Your task to perform on an android device: What's the weather going to be tomorrow? Image 0: 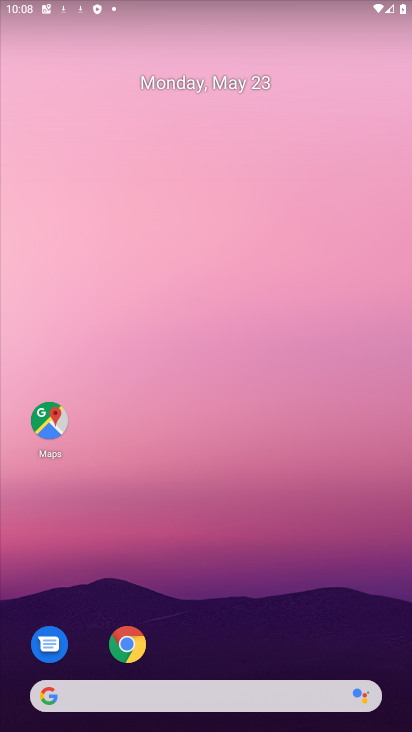
Step 0: drag from (275, 713) to (205, 204)
Your task to perform on an android device: What's the weather going to be tomorrow? Image 1: 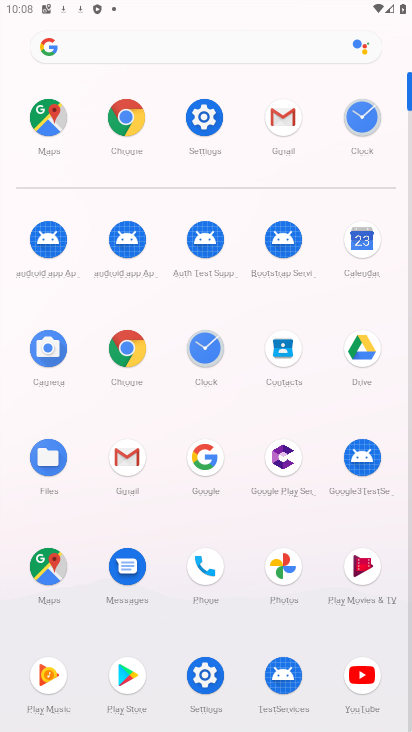
Step 1: click (101, 48)
Your task to perform on an android device: What's the weather going to be tomorrow? Image 2: 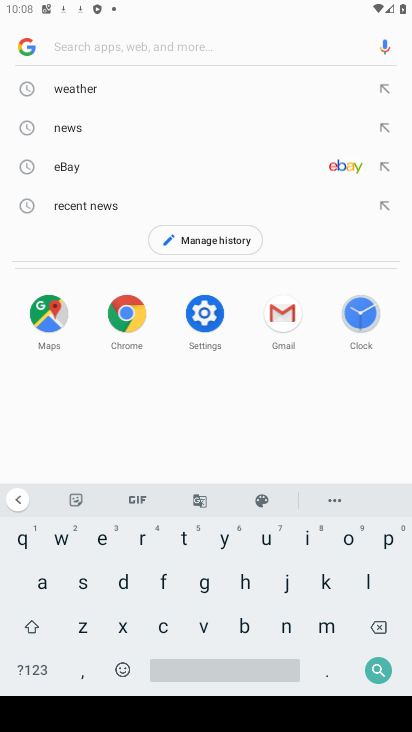
Step 2: click (100, 94)
Your task to perform on an android device: What's the weather going to be tomorrow? Image 3: 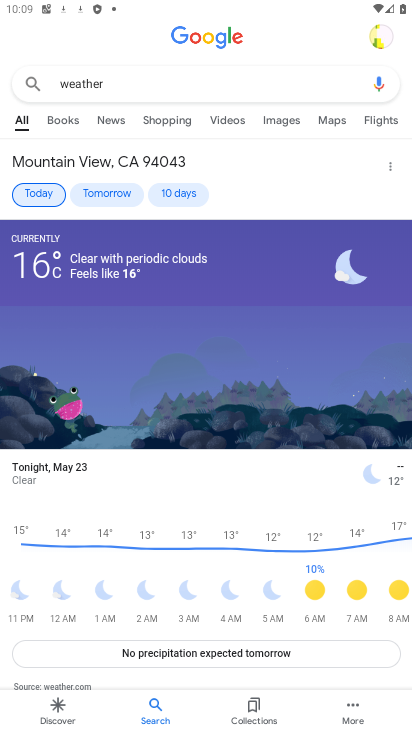
Step 3: click (100, 187)
Your task to perform on an android device: What's the weather going to be tomorrow? Image 4: 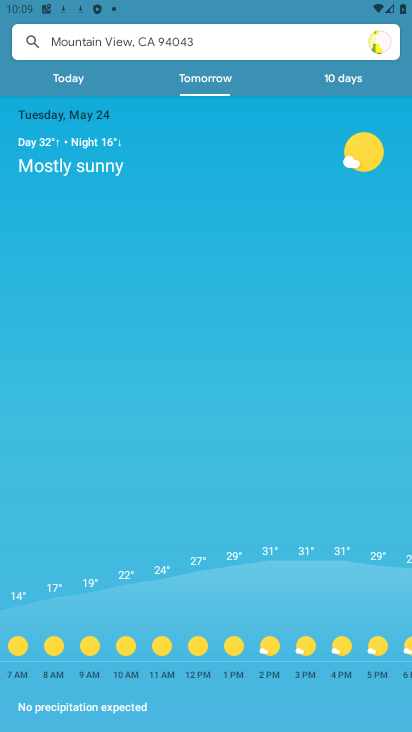
Step 4: task complete